Your task to perform on an android device: open app "DuckDuckGo Privacy Browser" Image 0: 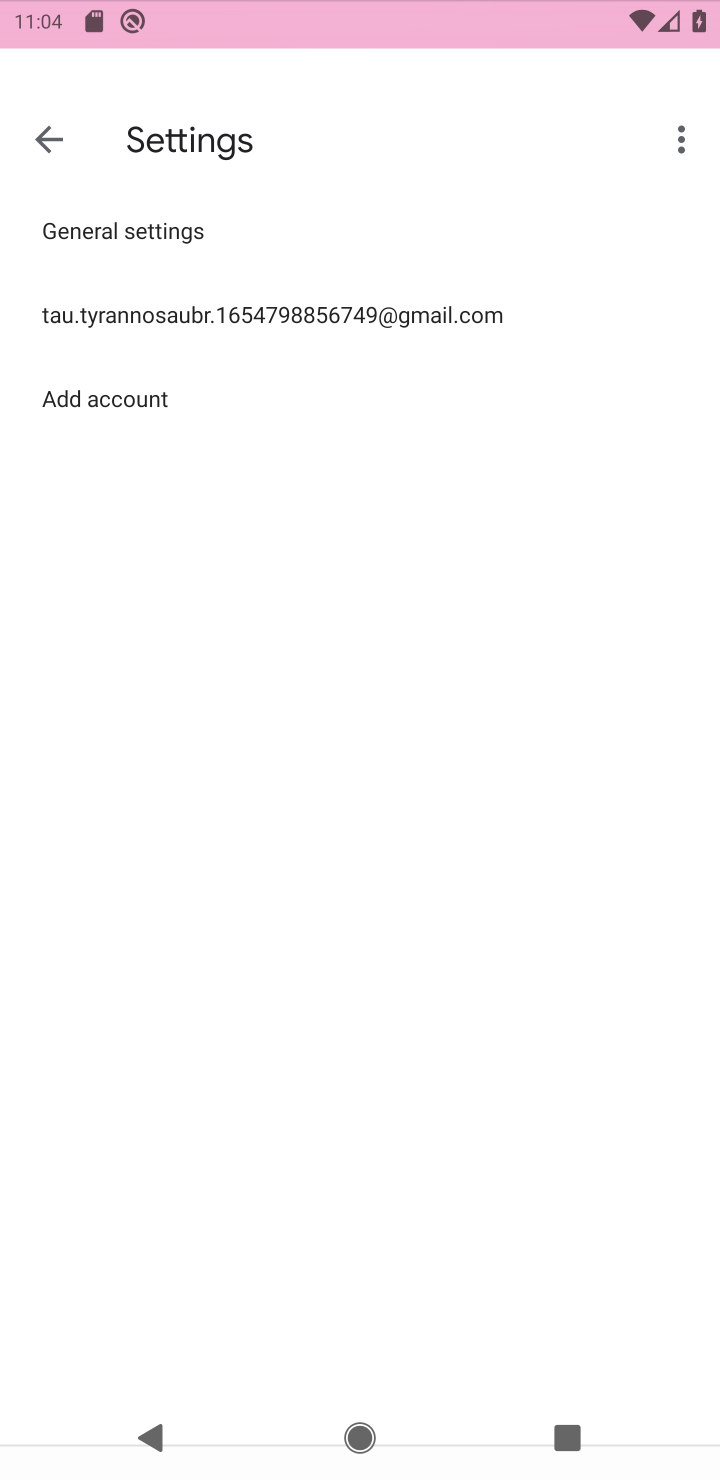
Step 0: press home button
Your task to perform on an android device: open app "DuckDuckGo Privacy Browser" Image 1: 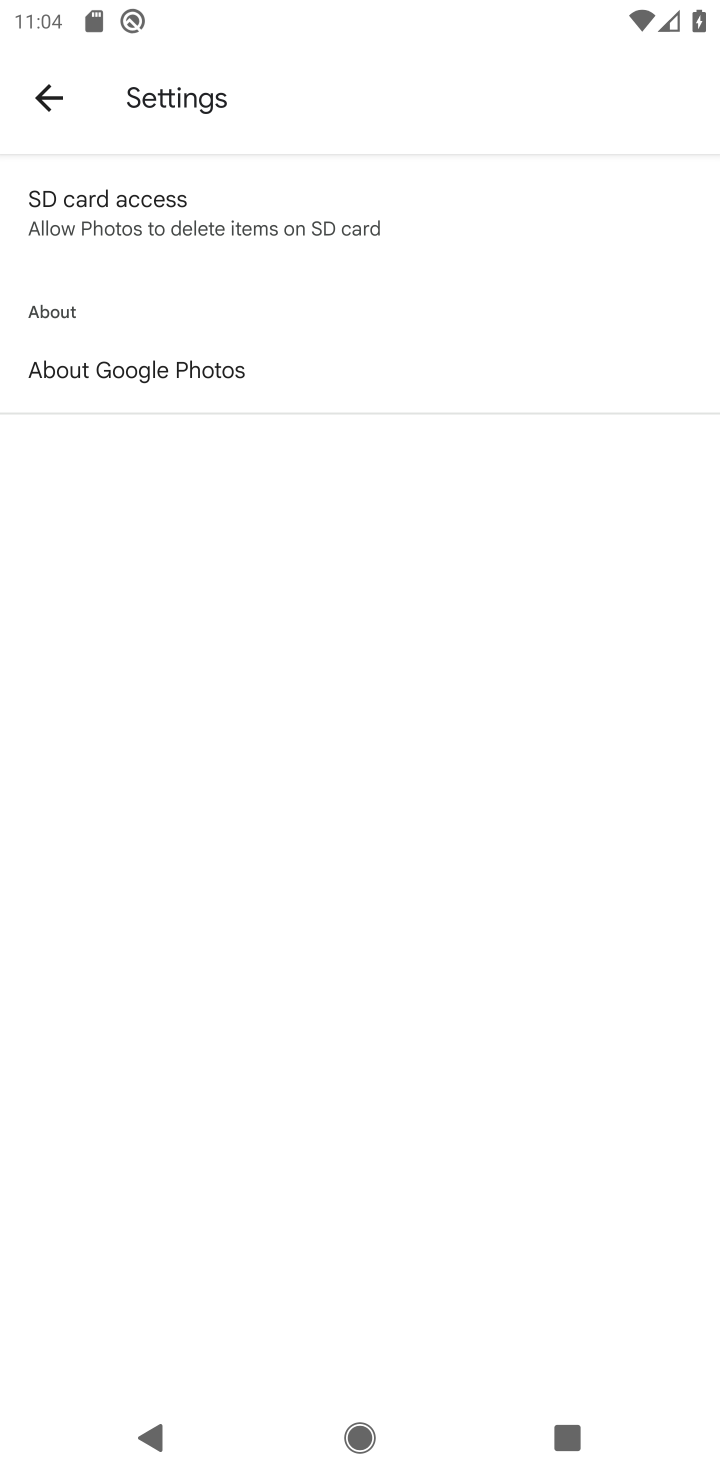
Step 1: press home button
Your task to perform on an android device: open app "DuckDuckGo Privacy Browser" Image 2: 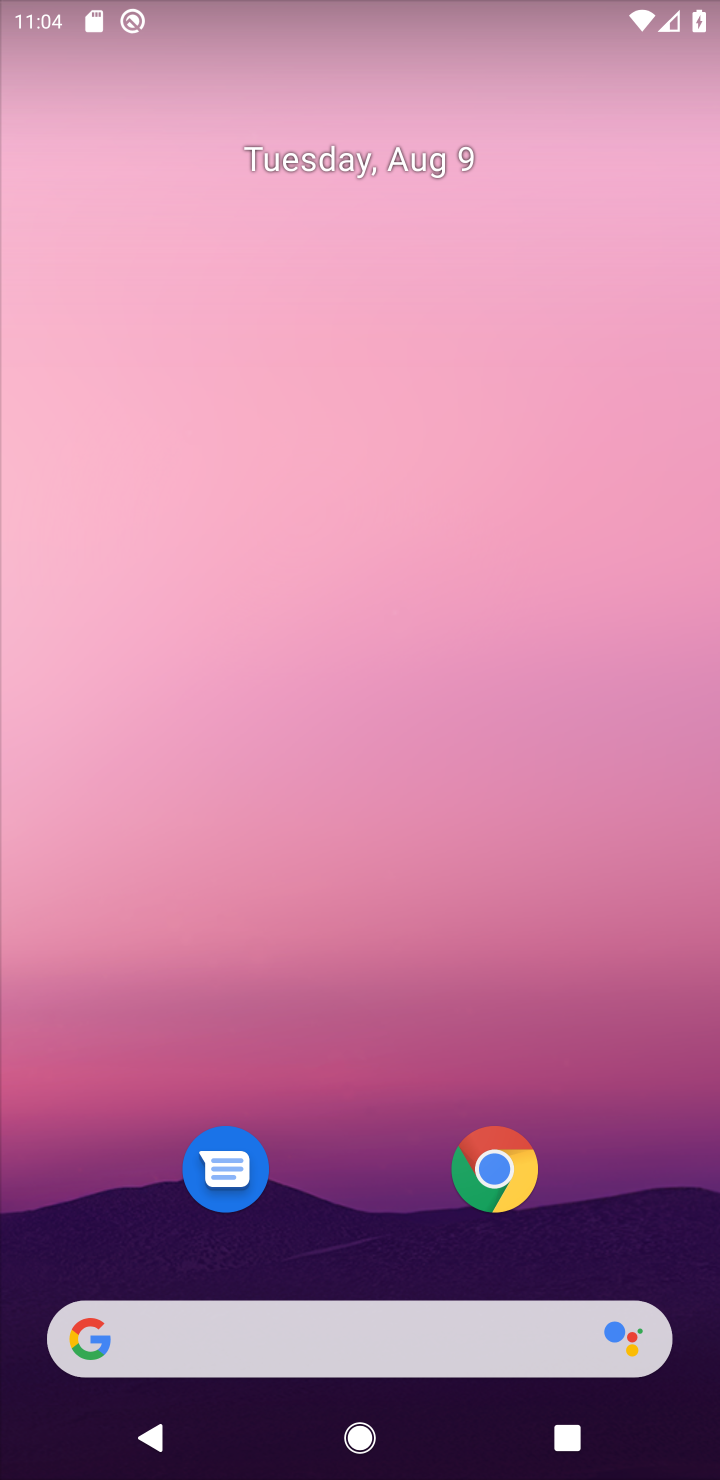
Step 2: drag from (614, 1245) to (534, 97)
Your task to perform on an android device: open app "DuckDuckGo Privacy Browser" Image 3: 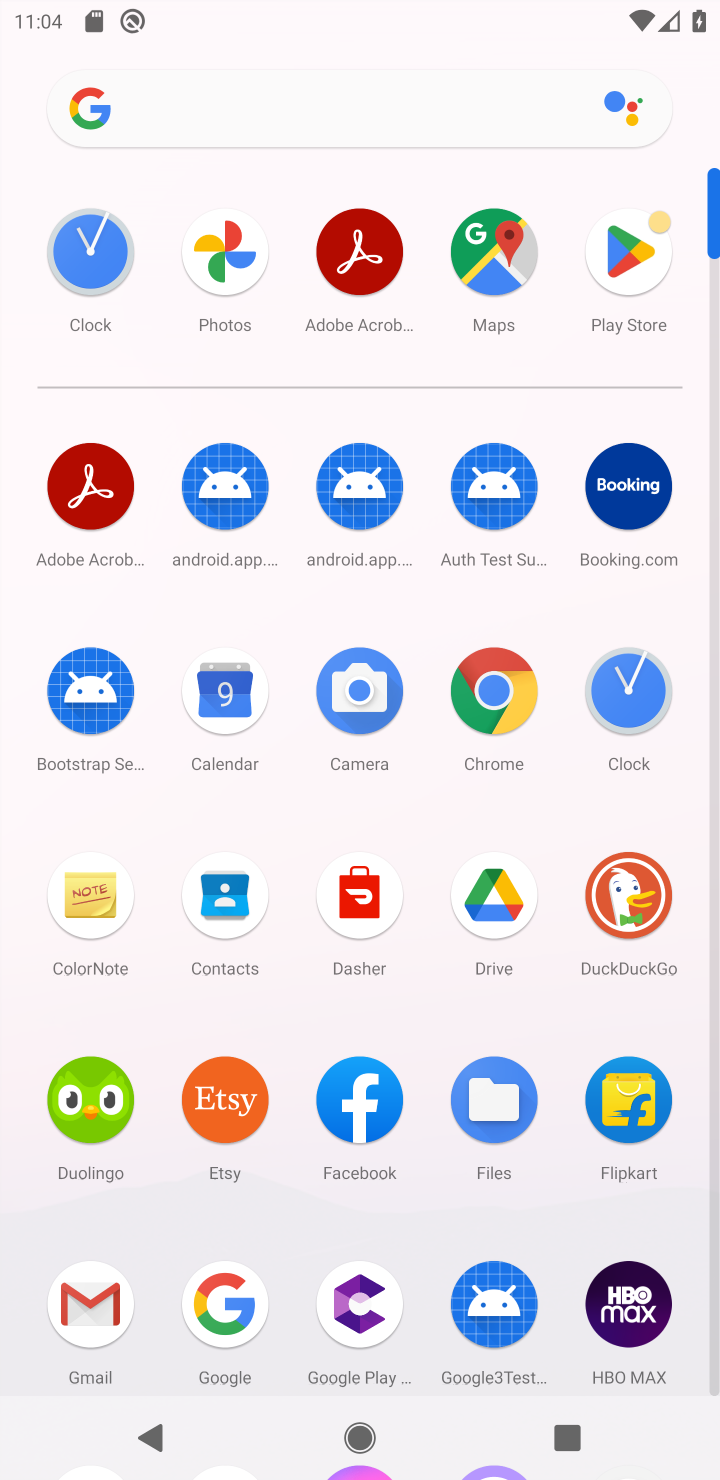
Step 3: click (638, 251)
Your task to perform on an android device: open app "DuckDuckGo Privacy Browser" Image 4: 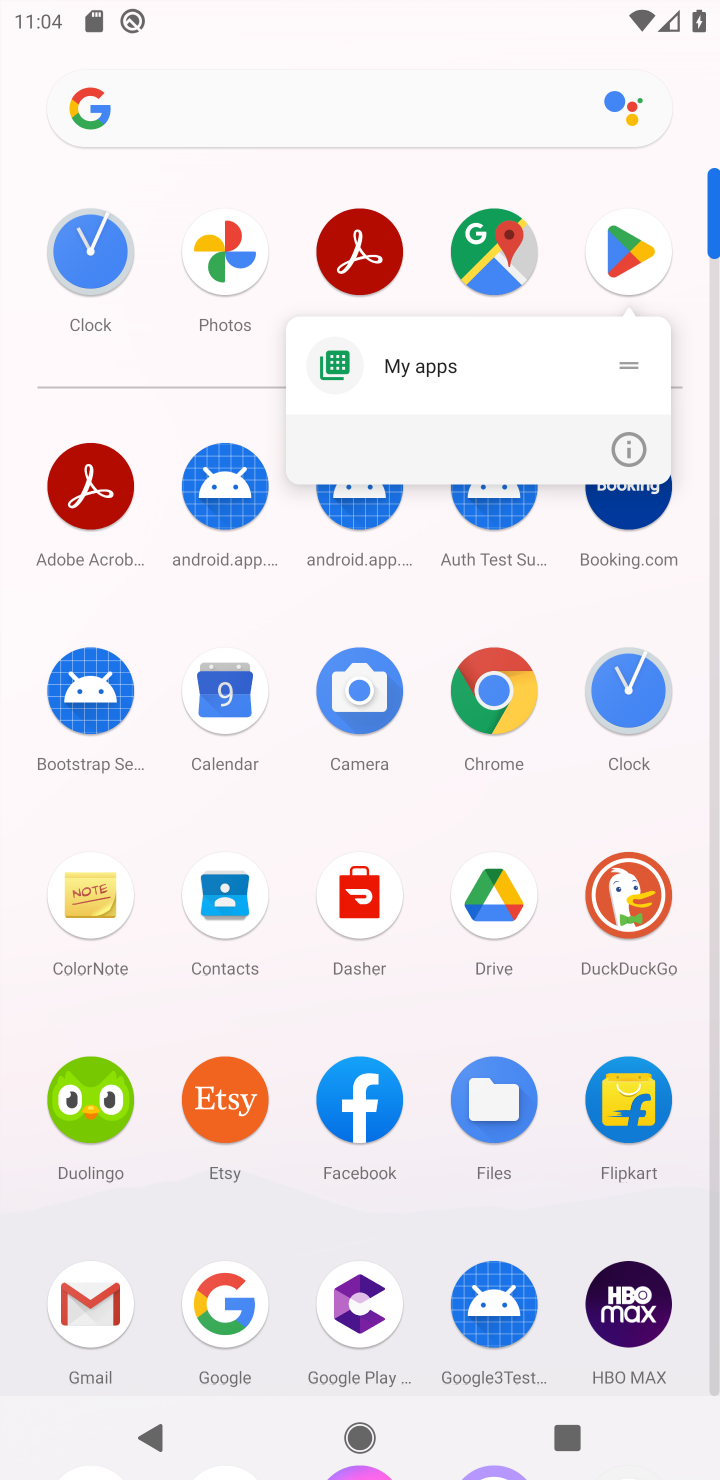
Step 4: click (625, 238)
Your task to perform on an android device: open app "DuckDuckGo Privacy Browser" Image 5: 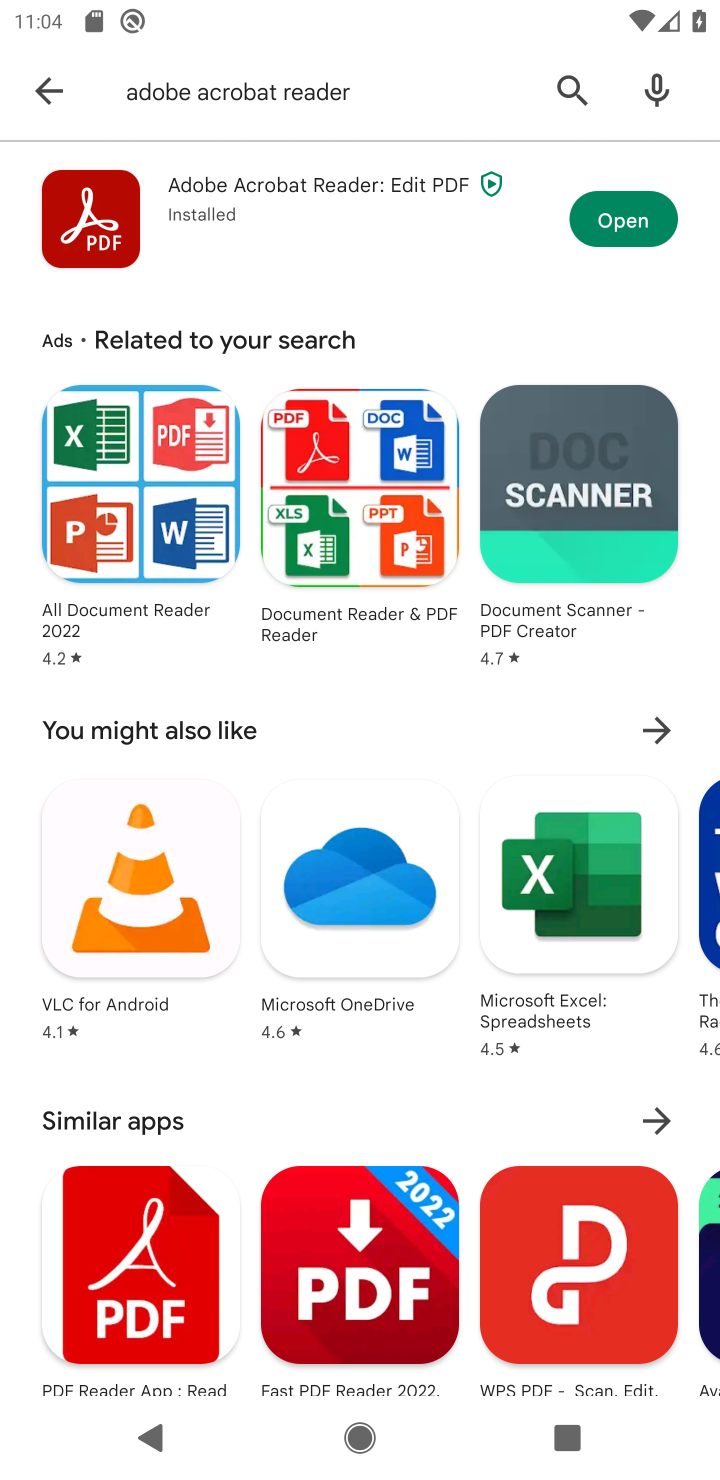
Step 5: click (573, 65)
Your task to perform on an android device: open app "DuckDuckGo Privacy Browser" Image 6: 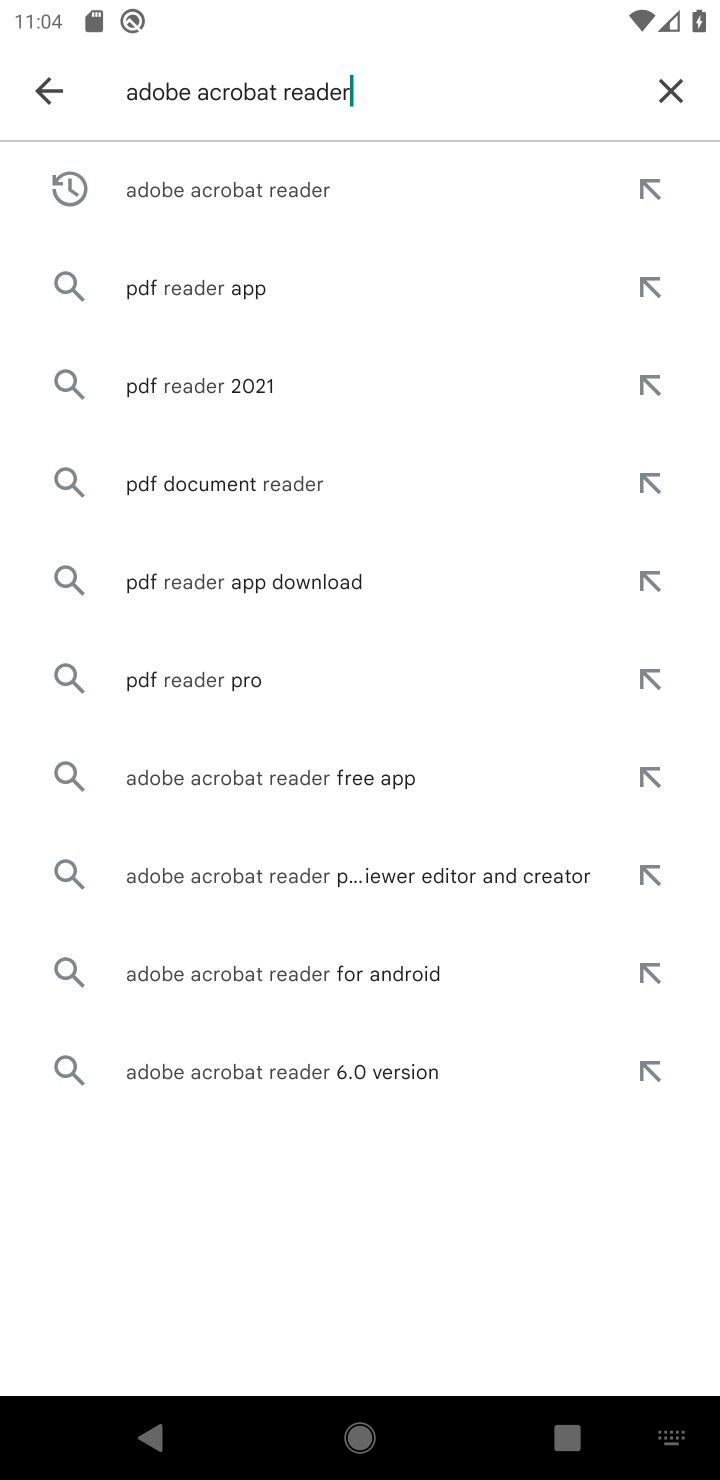
Step 6: click (671, 73)
Your task to perform on an android device: open app "DuckDuckGo Privacy Browser" Image 7: 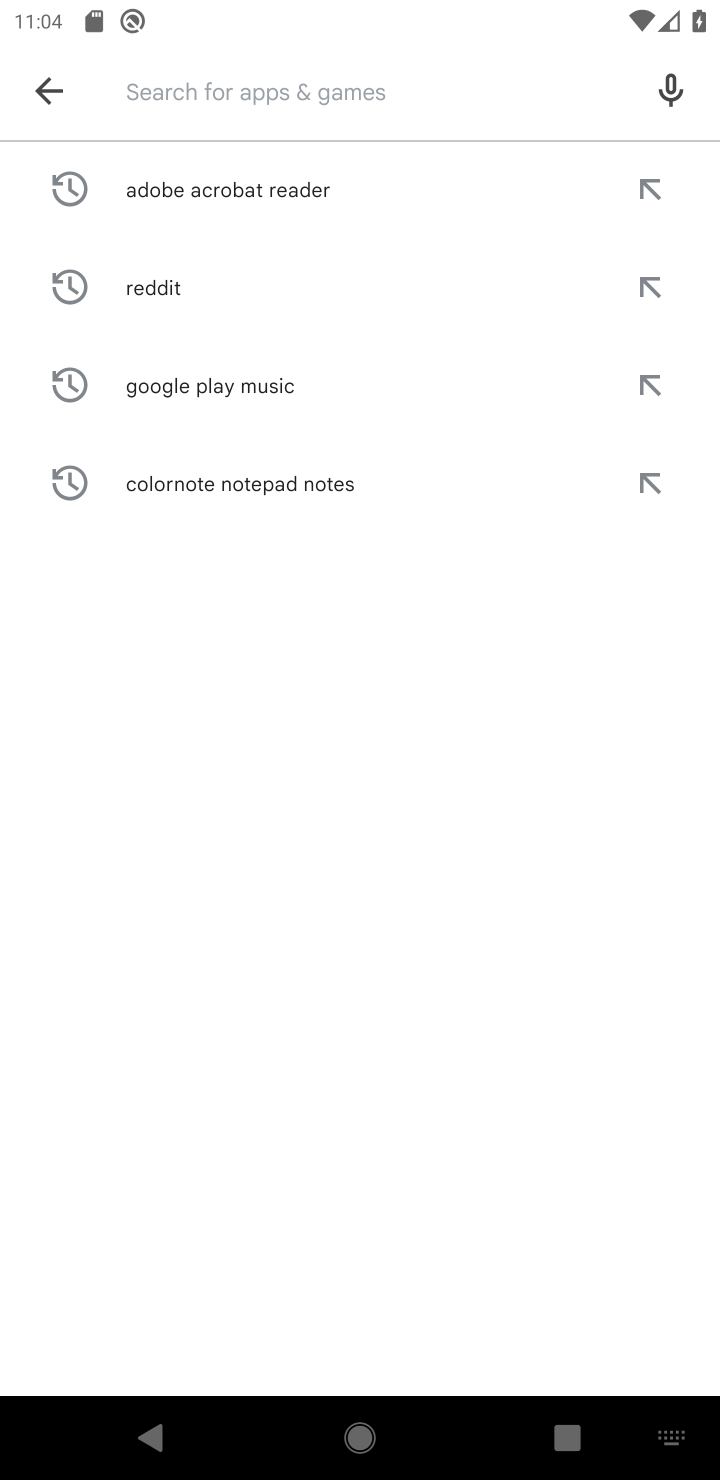
Step 7: type "DuckDuckGo Privacy Browser"
Your task to perform on an android device: open app "DuckDuckGo Privacy Browser" Image 8: 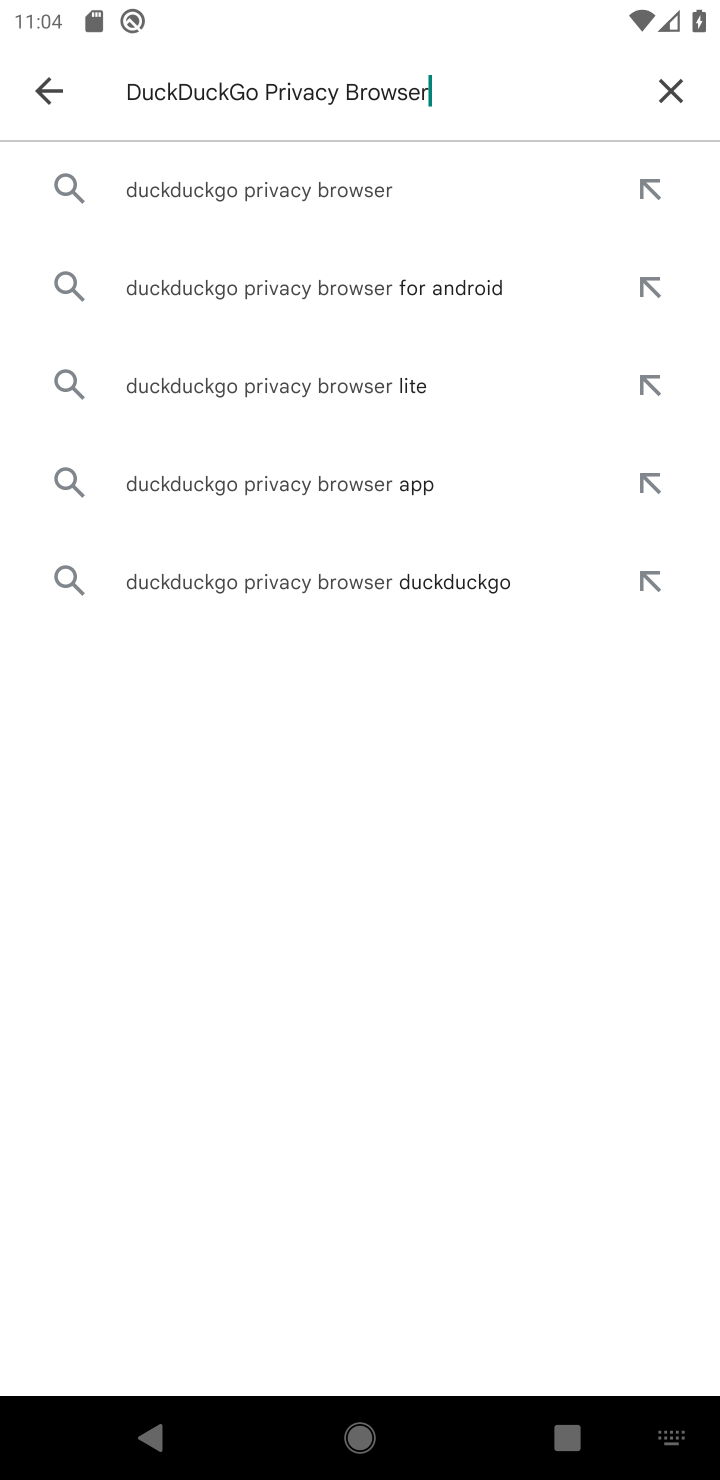
Step 8: click (391, 194)
Your task to perform on an android device: open app "DuckDuckGo Privacy Browser" Image 9: 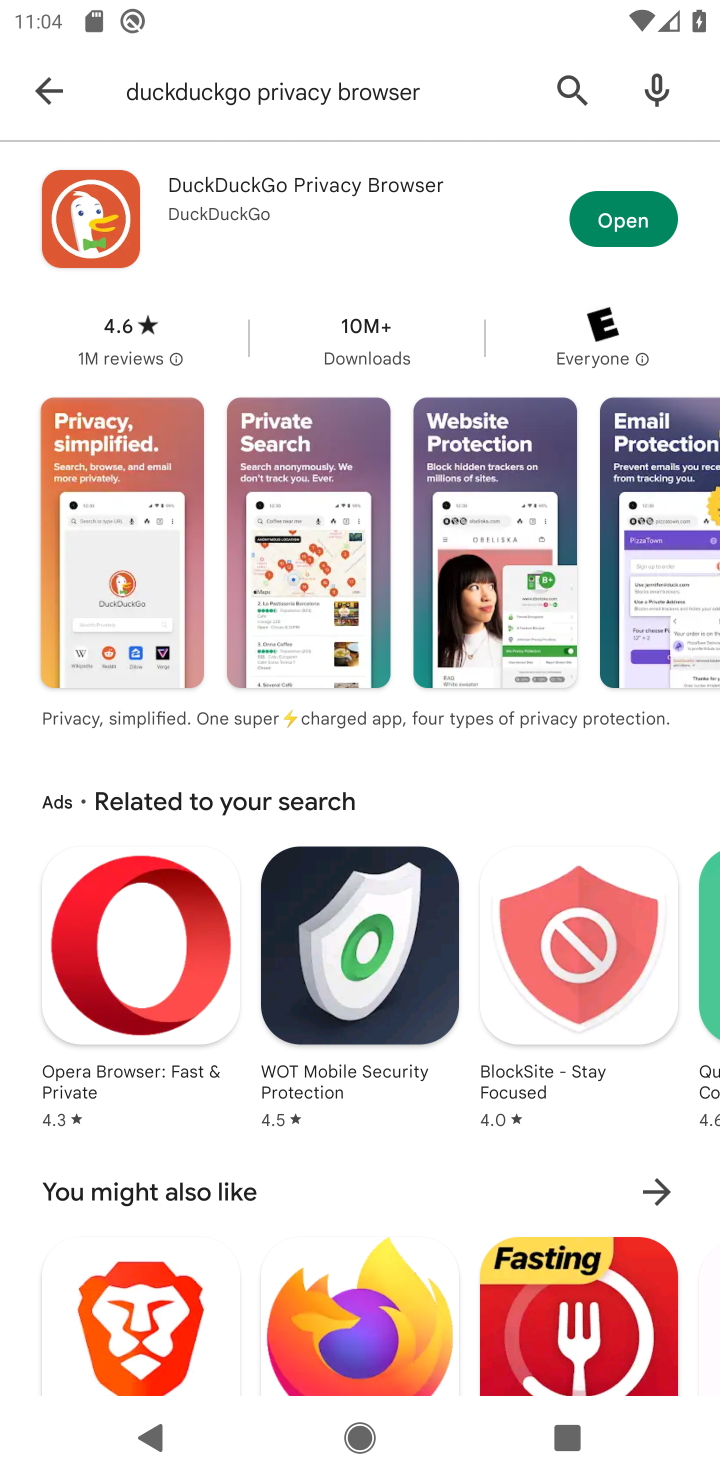
Step 9: click (635, 224)
Your task to perform on an android device: open app "DuckDuckGo Privacy Browser" Image 10: 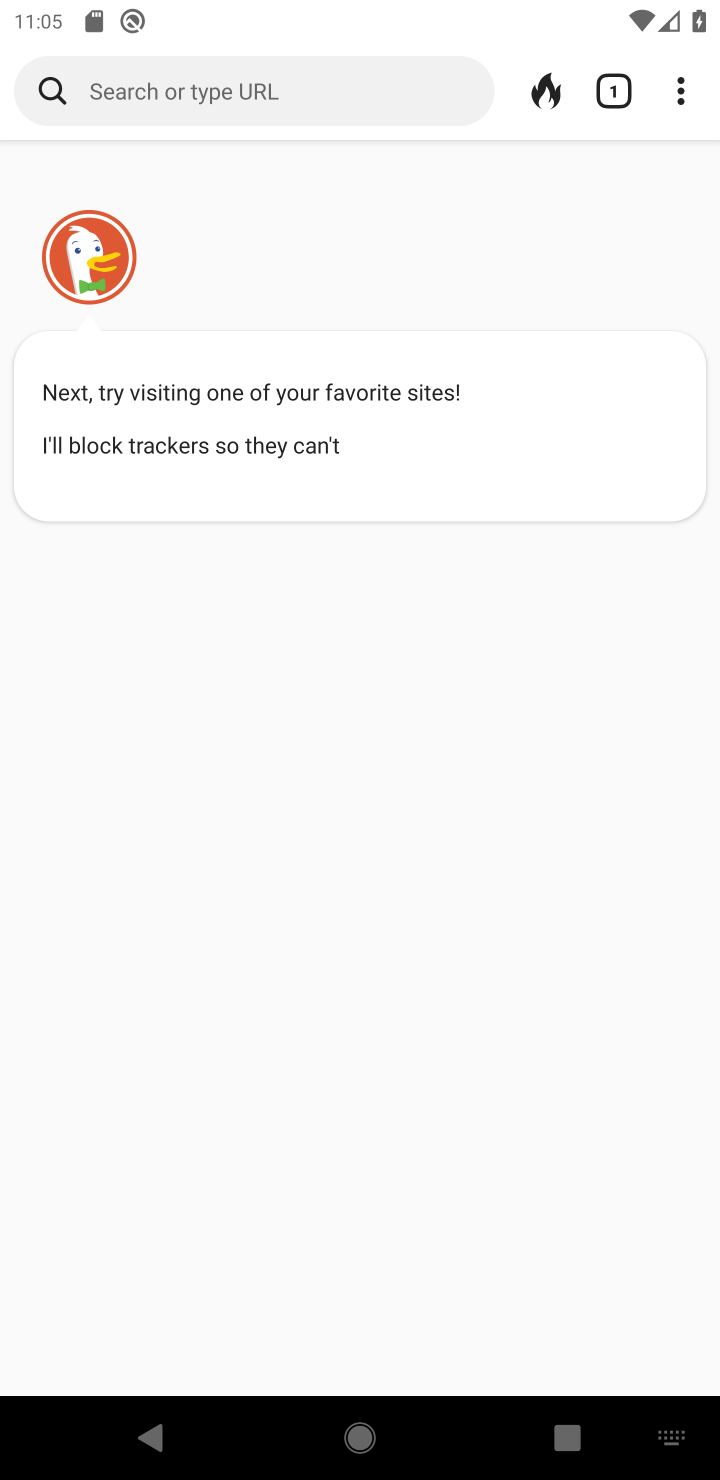
Step 10: task complete